Your task to perform on an android device: turn off javascript in the chrome app Image 0: 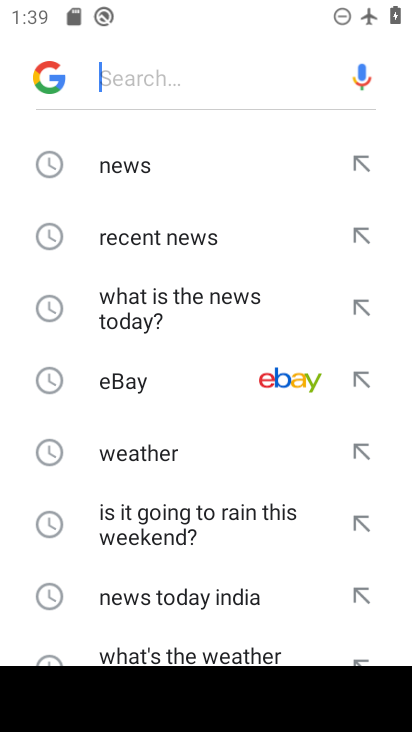
Step 0: press home button
Your task to perform on an android device: turn off javascript in the chrome app Image 1: 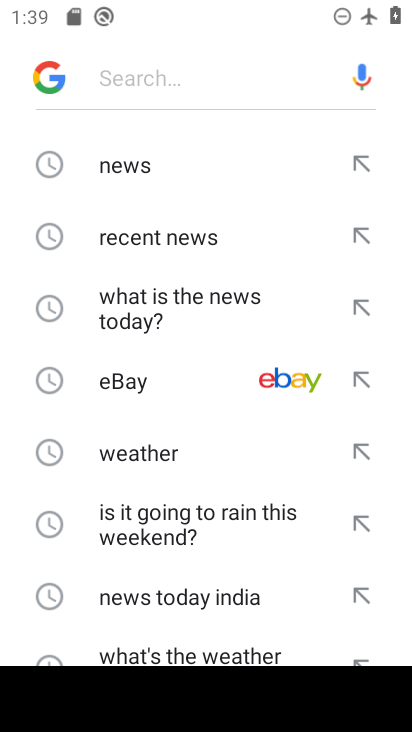
Step 1: press home button
Your task to perform on an android device: turn off javascript in the chrome app Image 2: 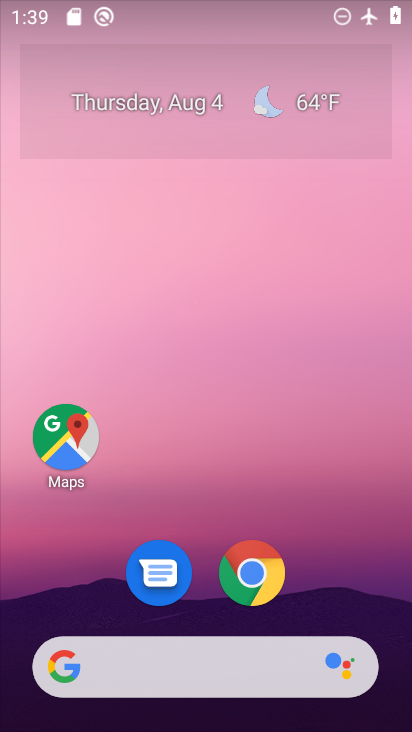
Step 2: drag from (333, 544) to (315, 79)
Your task to perform on an android device: turn off javascript in the chrome app Image 3: 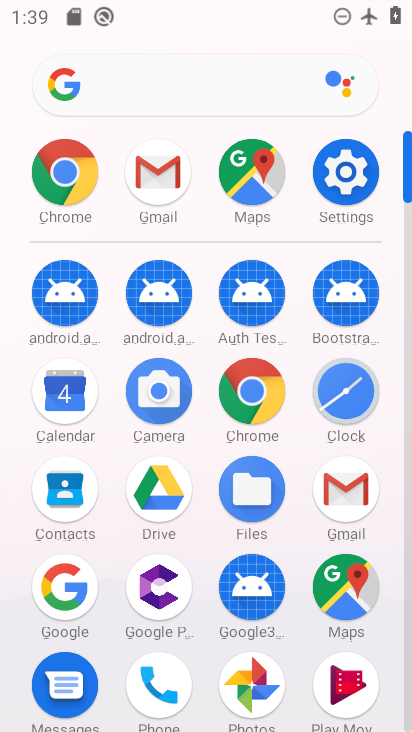
Step 3: click (251, 398)
Your task to perform on an android device: turn off javascript in the chrome app Image 4: 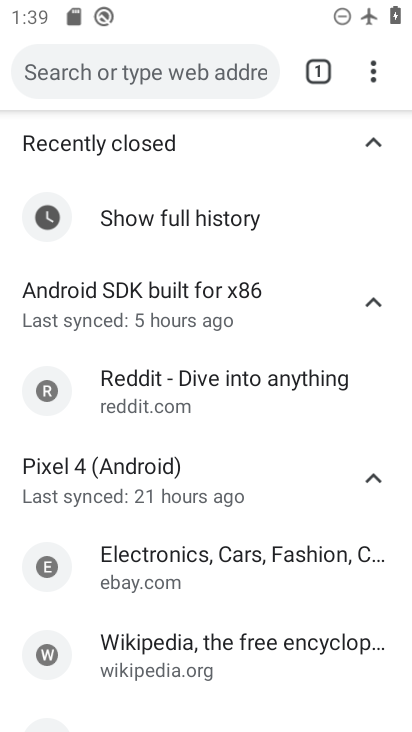
Step 4: drag from (386, 67) to (172, 599)
Your task to perform on an android device: turn off javascript in the chrome app Image 5: 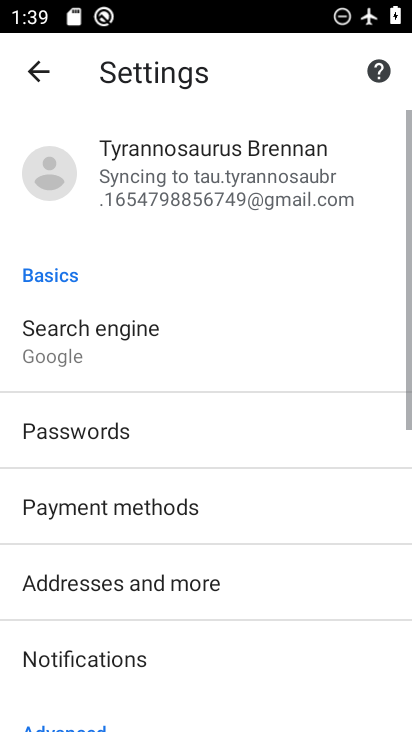
Step 5: drag from (319, 612) to (361, 84)
Your task to perform on an android device: turn off javascript in the chrome app Image 6: 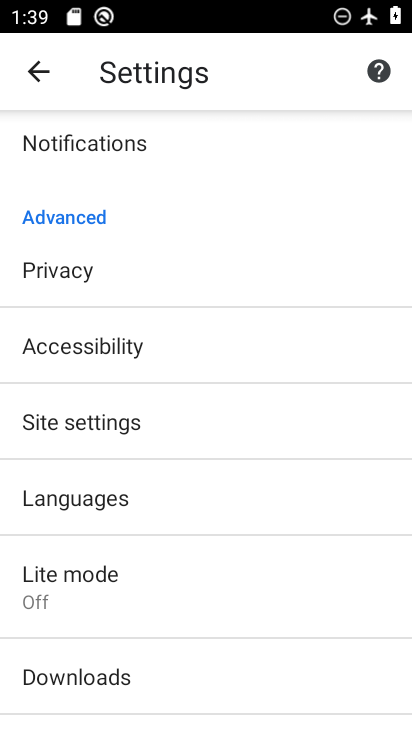
Step 6: drag from (247, 589) to (261, 165)
Your task to perform on an android device: turn off javascript in the chrome app Image 7: 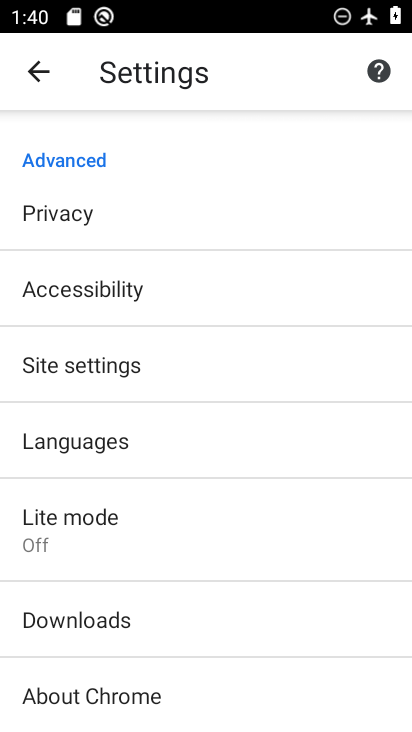
Step 7: drag from (210, 644) to (219, 250)
Your task to perform on an android device: turn off javascript in the chrome app Image 8: 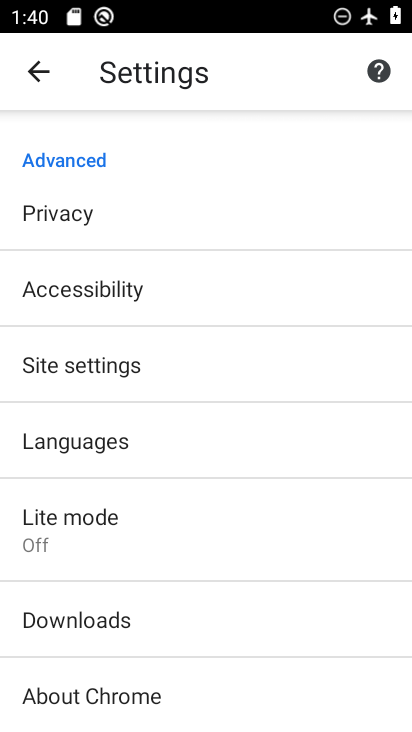
Step 8: click (101, 356)
Your task to perform on an android device: turn off javascript in the chrome app Image 9: 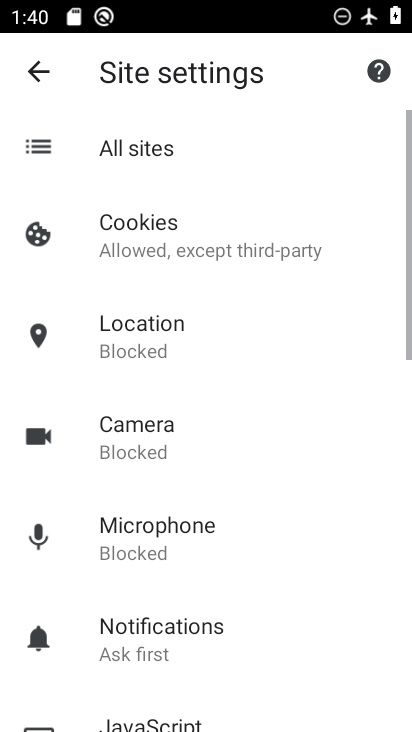
Step 9: drag from (290, 641) to (281, 213)
Your task to perform on an android device: turn off javascript in the chrome app Image 10: 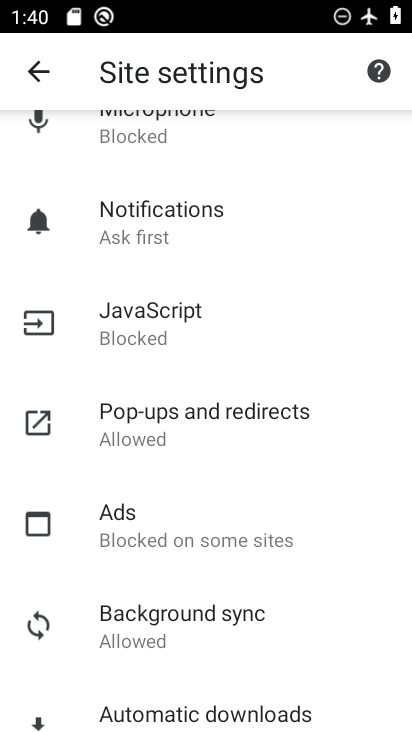
Step 10: click (151, 318)
Your task to perform on an android device: turn off javascript in the chrome app Image 11: 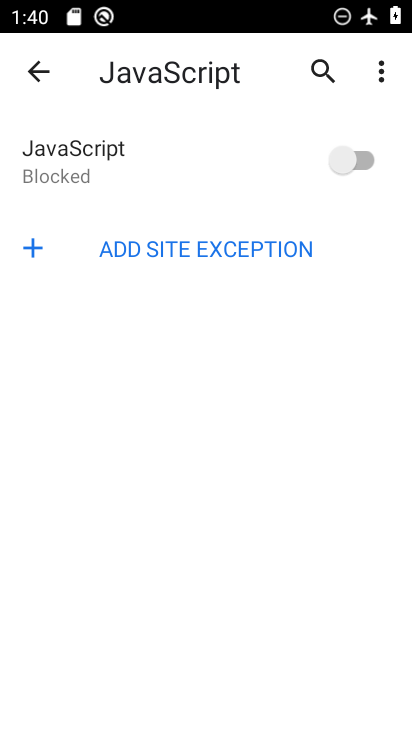
Step 11: task complete